Your task to perform on an android device: turn on airplane mode Image 0: 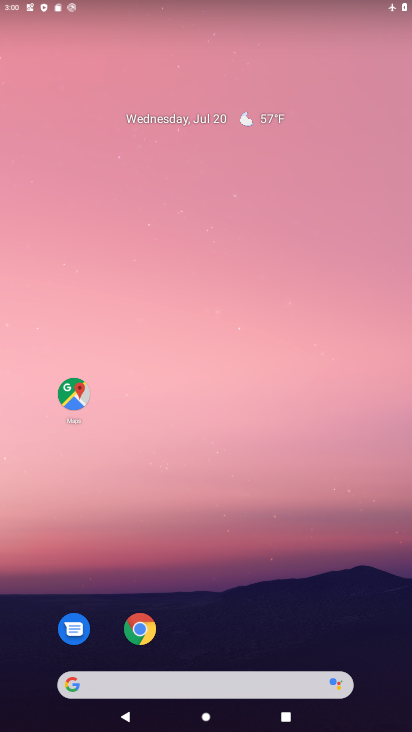
Step 0: drag from (220, 618) to (227, 200)
Your task to perform on an android device: turn on airplane mode Image 1: 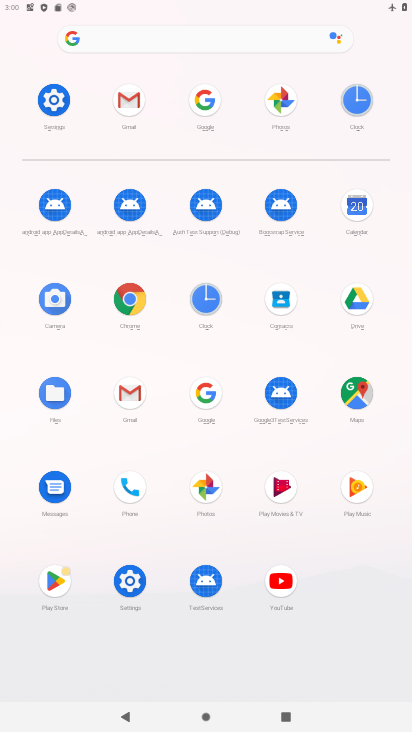
Step 1: click (38, 87)
Your task to perform on an android device: turn on airplane mode Image 2: 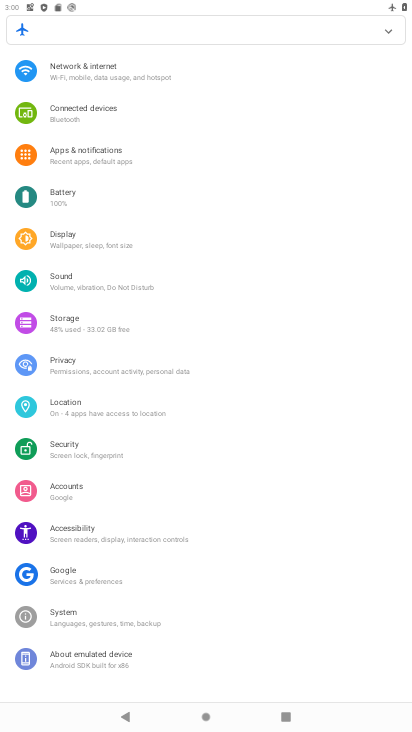
Step 2: click (138, 84)
Your task to perform on an android device: turn on airplane mode Image 3: 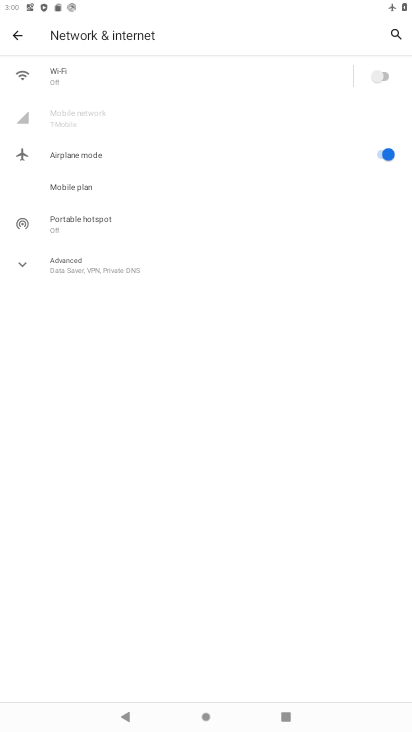
Step 3: task complete